Your task to perform on an android device: toggle notification dots Image 0: 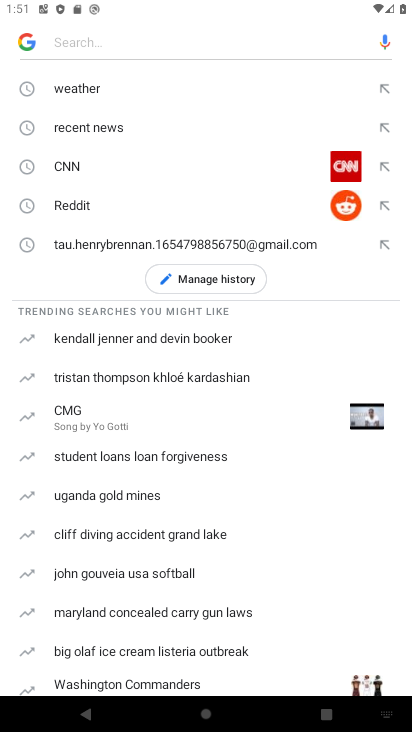
Step 0: press home button
Your task to perform on an android device: toggle notification dots Image 1: 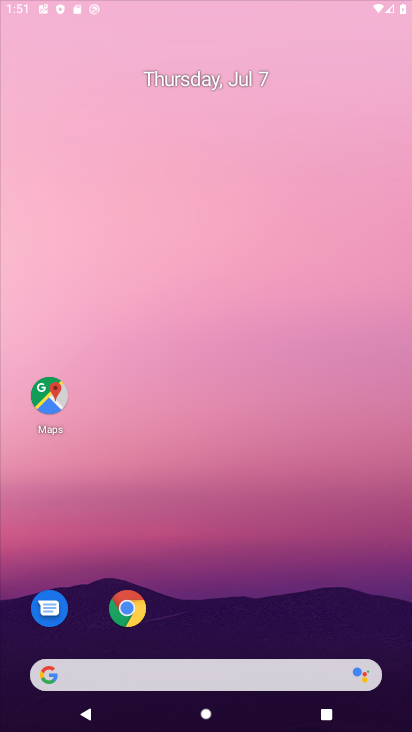
Step 1: drag from (211, 657) to (245, 71)
Your task to perform on an android device: toggle notification dots Image 2: 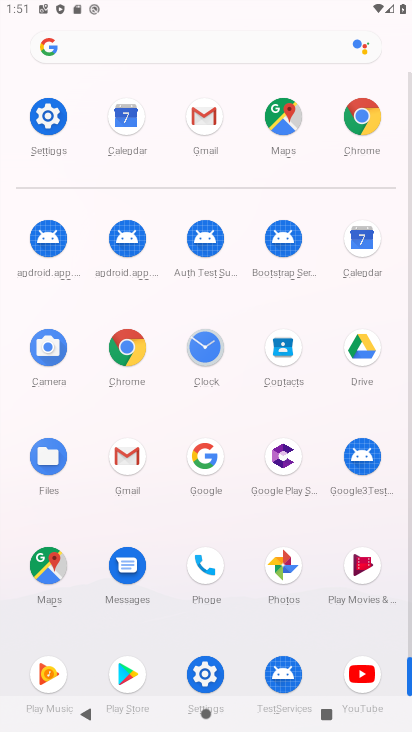
Step 2: click (50, 102)
Your task to perform on an android device: toggle notification dots Image 3: 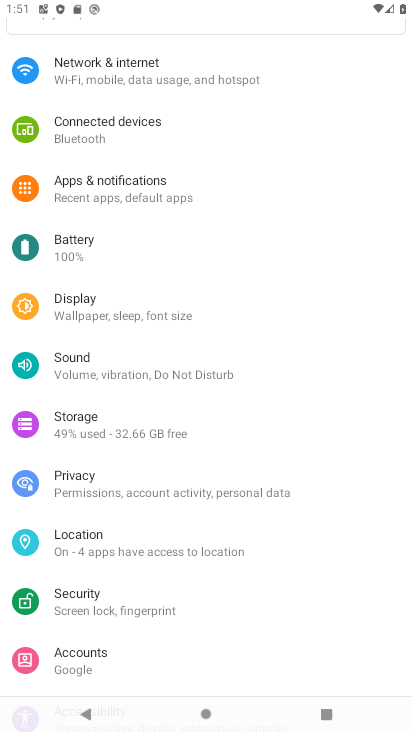
Step 3: click (127, 201)
Your task to perform on an android device: toggle notification dots Image 4: 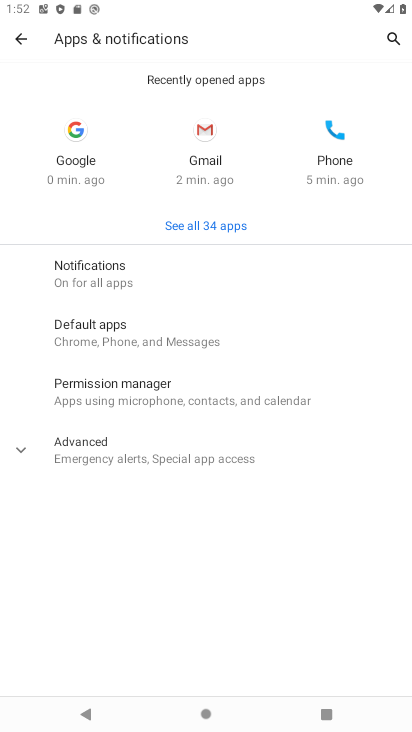
Step 4: click (105, 277)
Your task to perform on an android device: toggle notification dots Image 5: 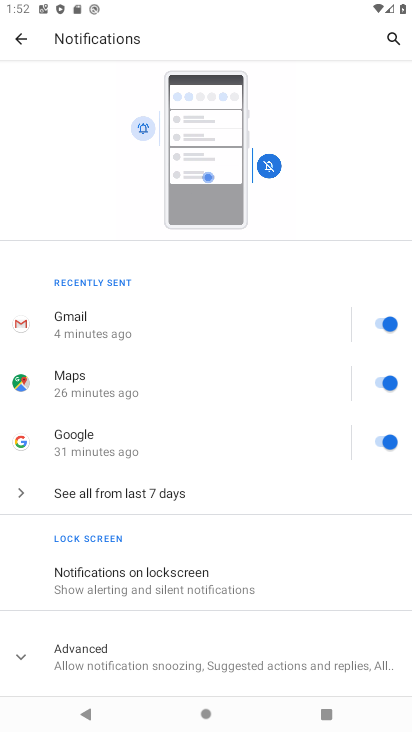
Step 5: drag from (198, 646) to (190, 462)
Your task to perform on an android device: toggle notification dots Image 6: 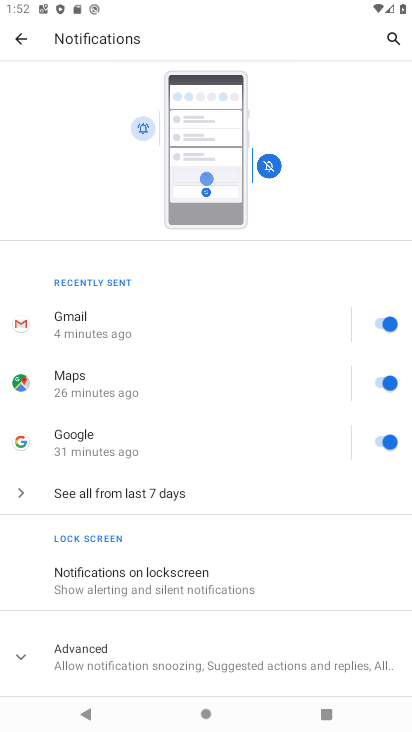
Step 6: click (140, 652)
Your task to perform on an android device: toggle notification dots Image 7: 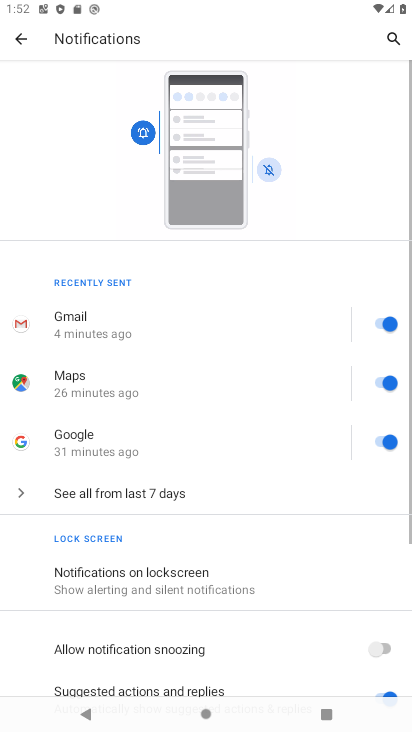
Step 7: drag from (143, 635) to (140, 403)
Your task to perform on an android device: toggle notification dots Image 8: 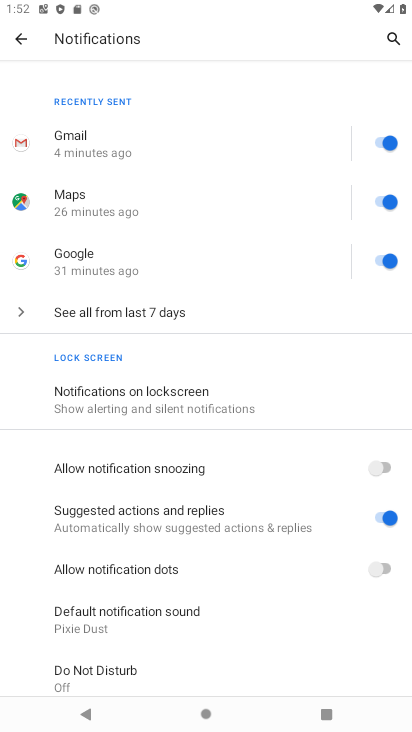
Step 8: click (382, 569)
Your task to perform on an android device: toggle notification dots Image 9: 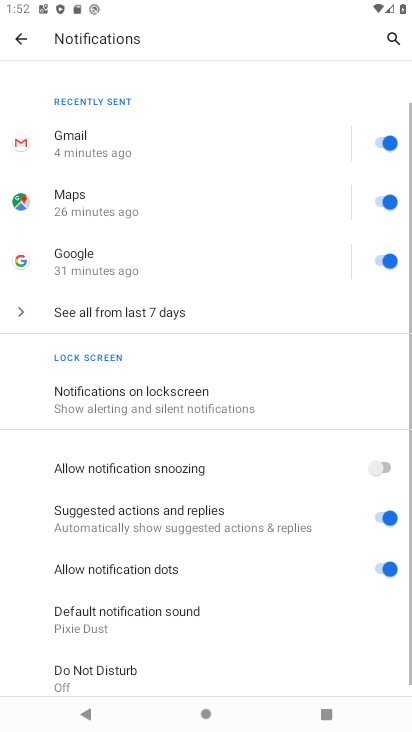
Step 9: task complete